Your task to perform on an android device: find photos in the google photos app Image 0: 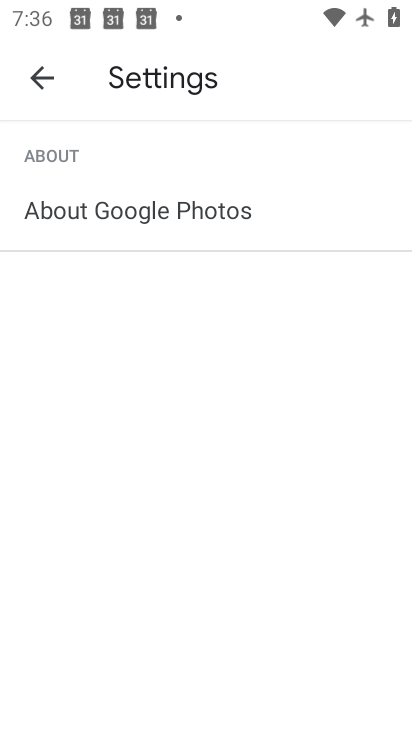
Step 0: press home button
Your task to perform on an android device: find photos in the google photos app Image 1: 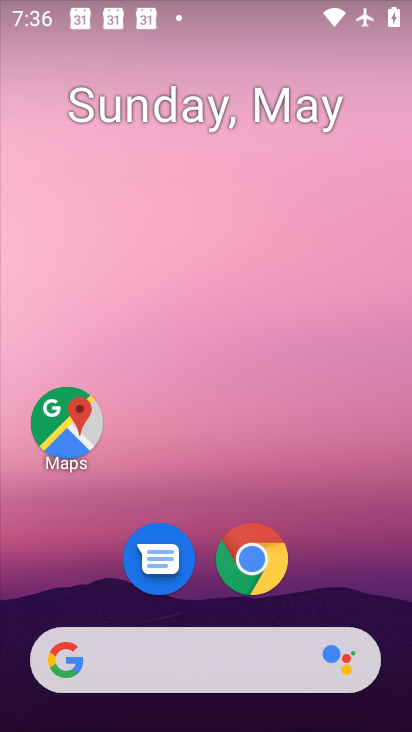
Step 1: drag from (199, 654) to (268, 160)
Your task to perform on an android device: find photos in the google photos app Image 2: 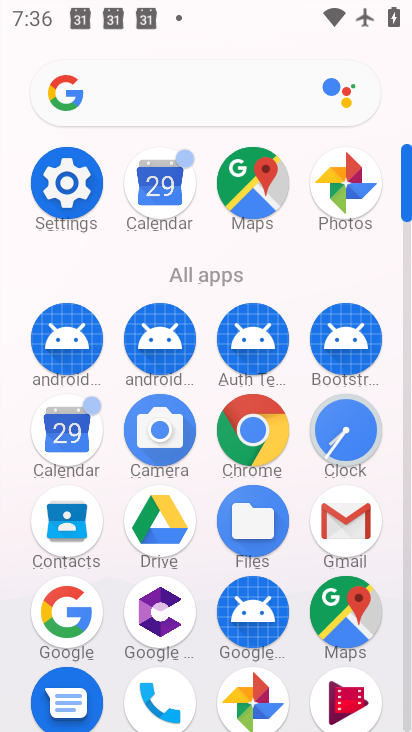
Step 2: click (337, 194)
Your task to perform on an android device: find photos in the google photos app Image 3: 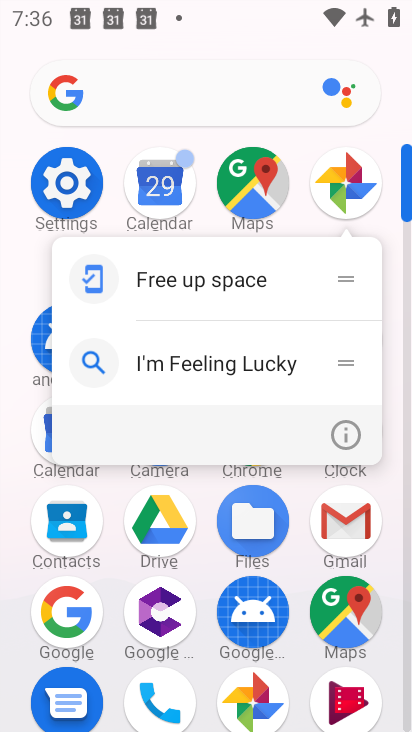
Step 3: click (352, 188)
Your task to perform on an android device: find photos in the google photos app Image 4: 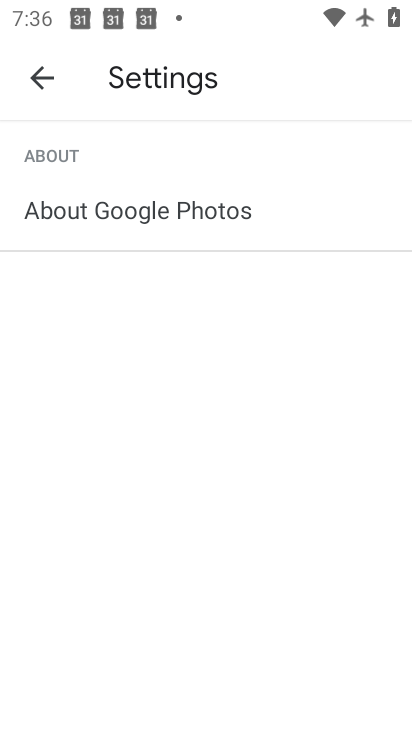
Step 4: click (49, 79)
Your task to perform on an android device: find photos in the google photos app Image 5: 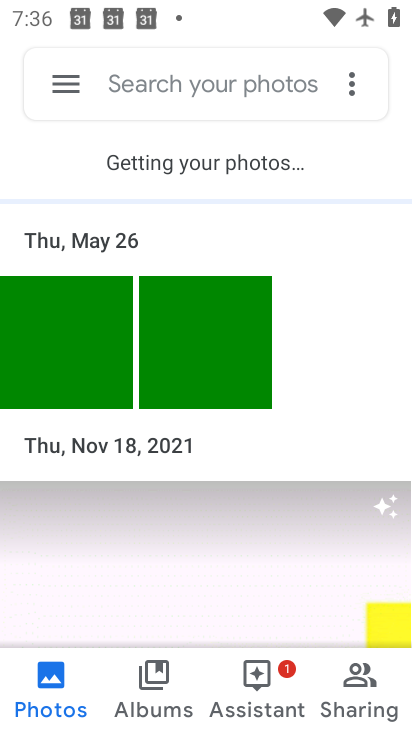
Step 5: task complete